Your task to perform on an android device: set default search engine in the chrome app Image 0: 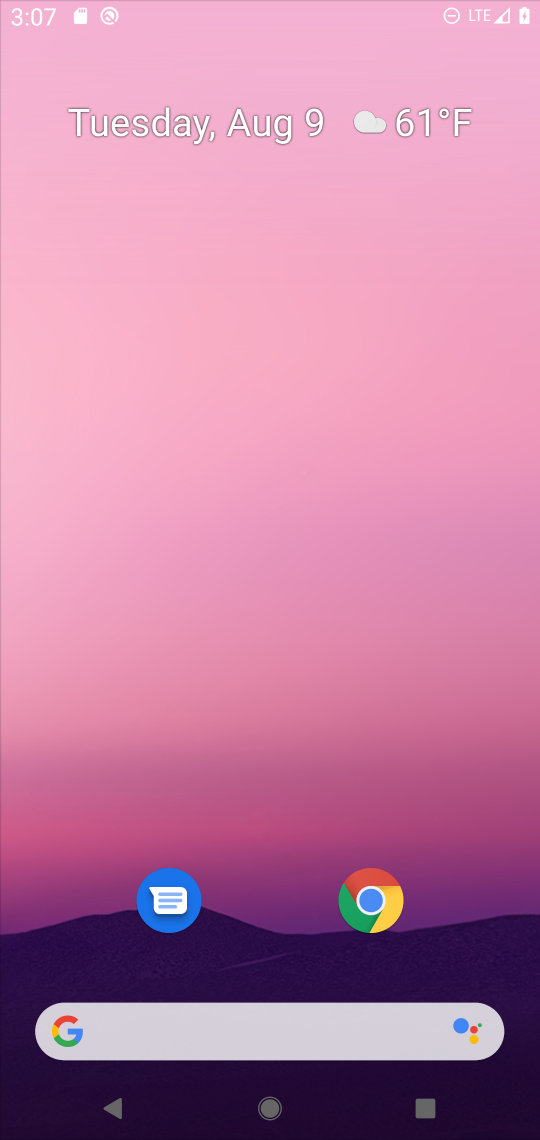
Step 0: press home button
Your task to perform on an android device: set default search engine in the chrome app Image 1: 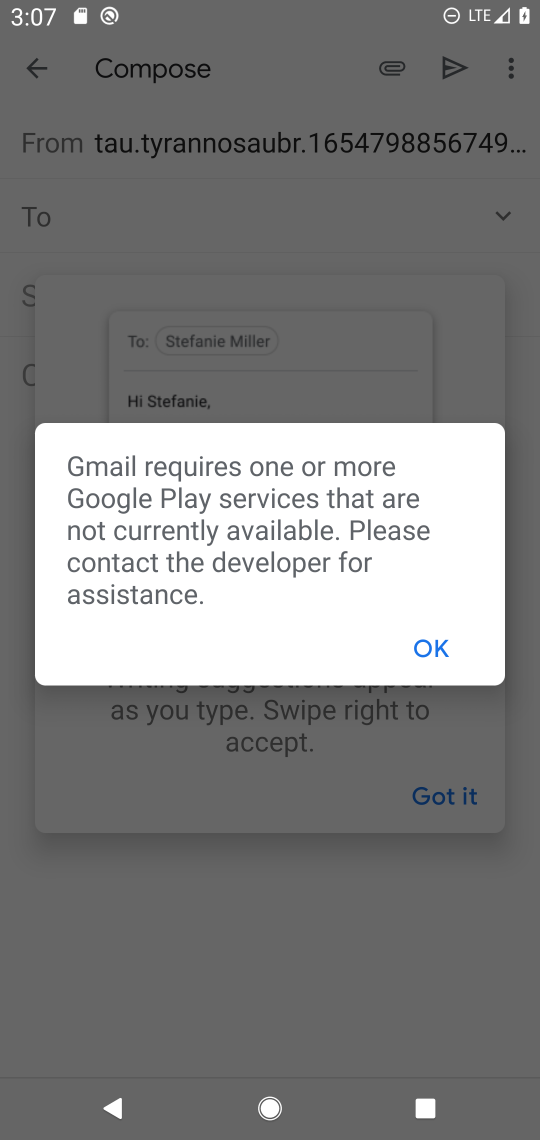
Step 1: click (314, 152)
Your task to perform on an android device: set default search engine in the chrome app Image 2: 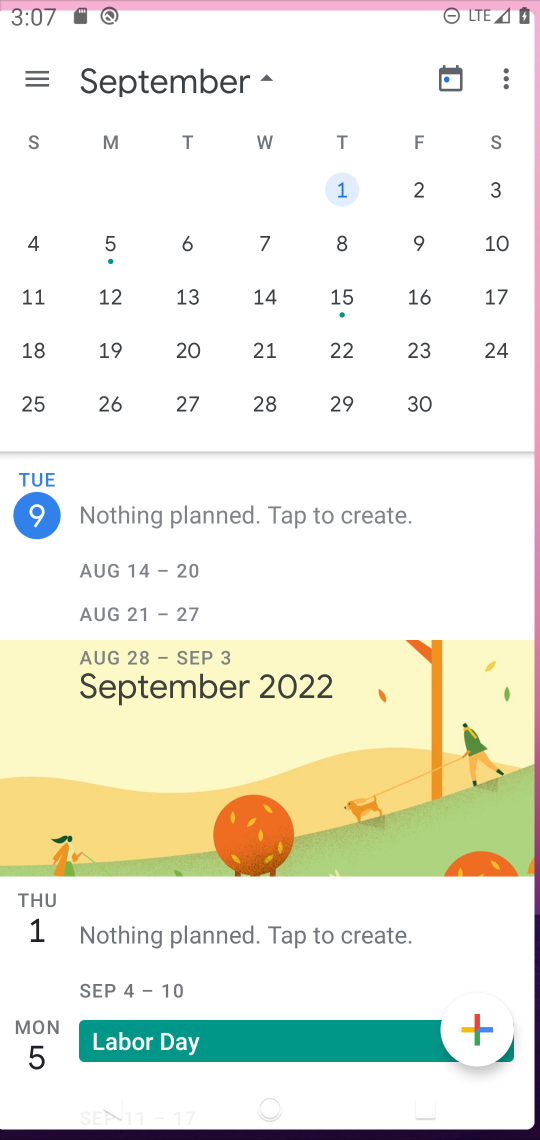
Step 2: drag from (445, 899) to (430, 191)
Your task to perform on an android device: set default search engine in the chrome app Image 3: 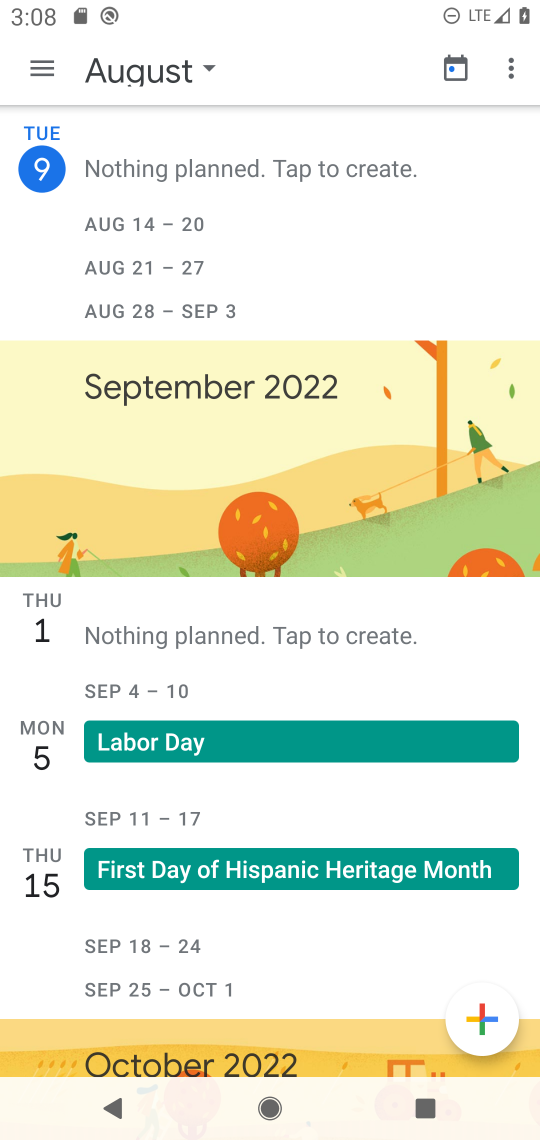
Step 3: press home button
Your task to perform on an android device: set default search engine in the chrome app Image 4: 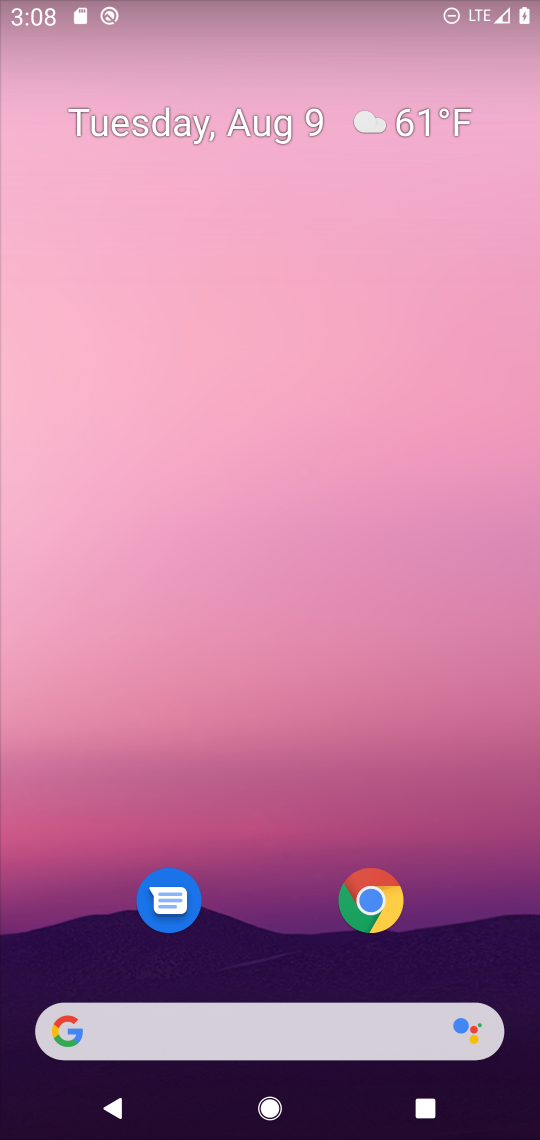
Step 4: drag from (260, 885) to (297, 52)
Your task to perform on an android device: set default search engine in the chrome app Image 5: 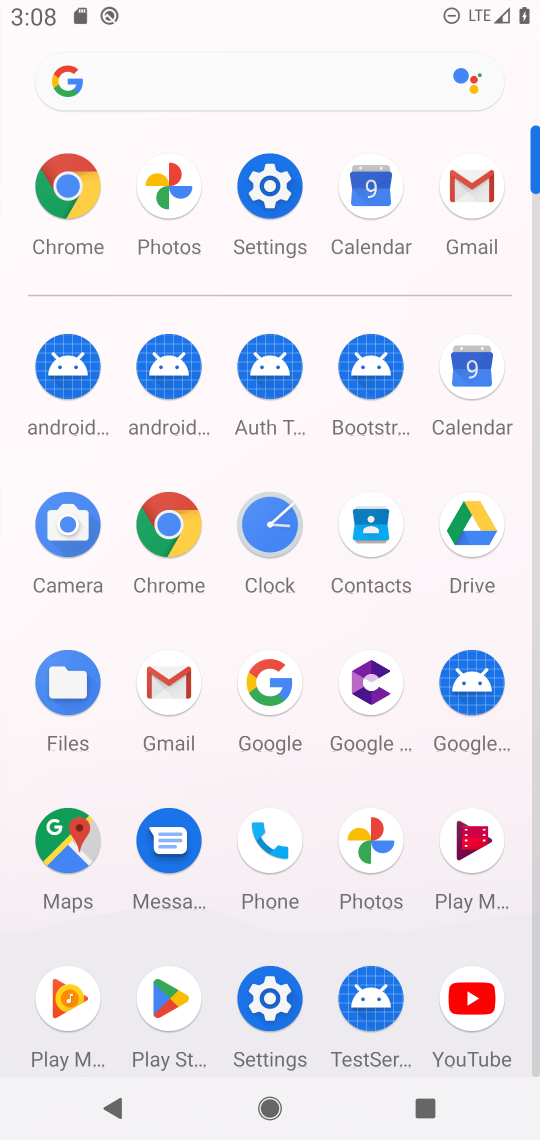
Step 5: click (173, 519)
Your task to perform on an android device: set default search engine in the chrome app Image 6: 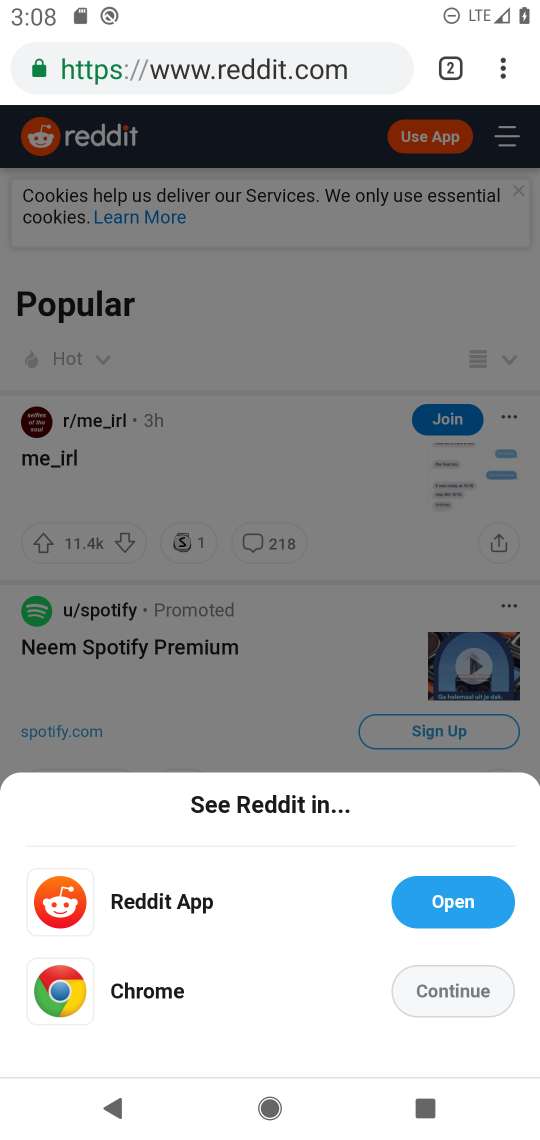
Step 6: click (502, 72)
Your task to perform on an android device: set default search engine in the chrome app Image 7: 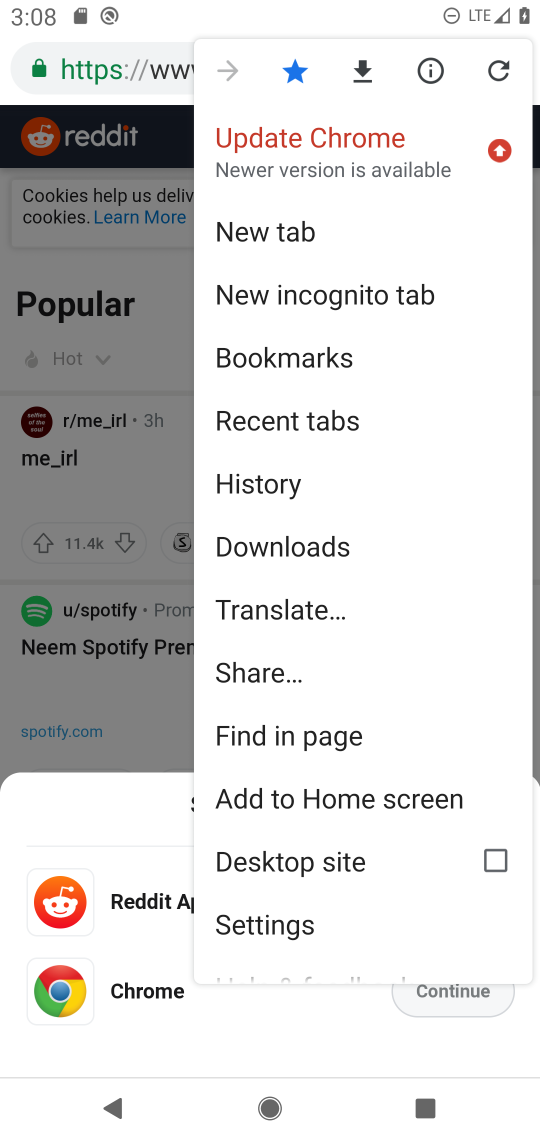
Step 7: click (285, 920)
Your task to perform on an android device: set default search engine in the chrome app Image 8: 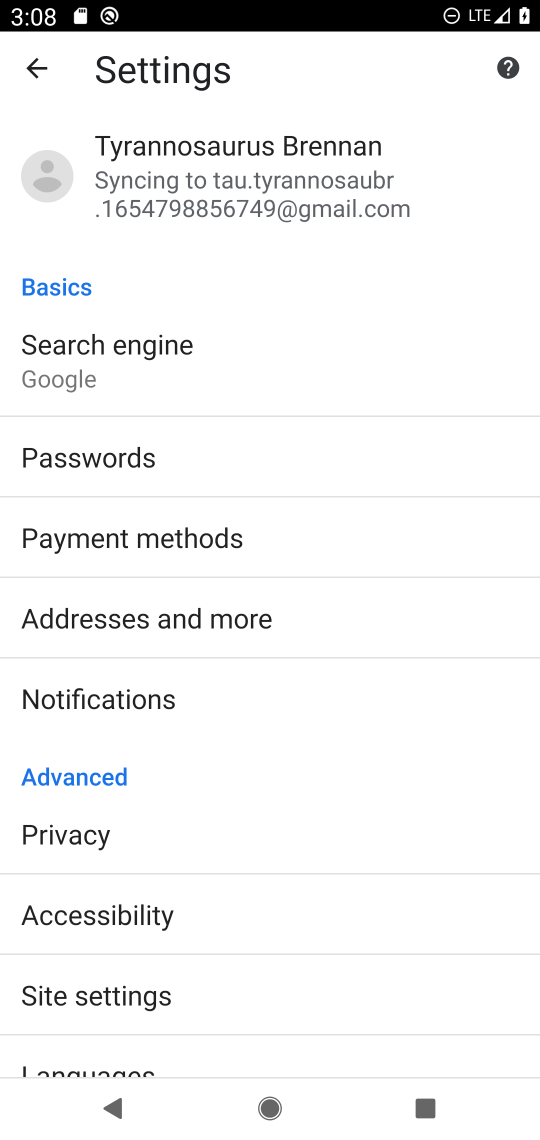
Step 8: click (144, 373)
Your task to perform on an android device: set default search engine in the chrome app Image 9: 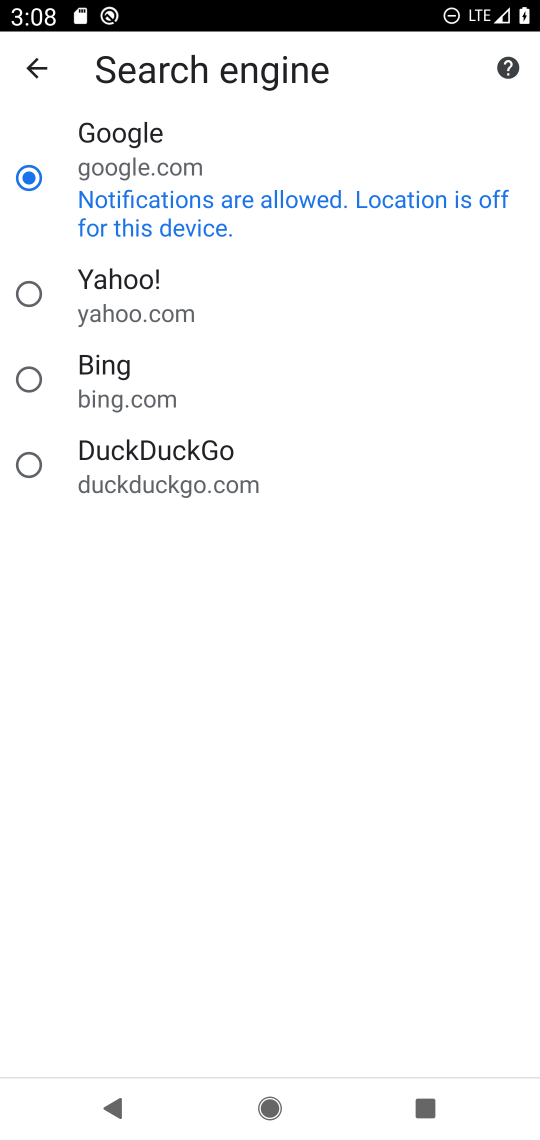
Step 9: click (28, 302)
Your task to perform on an android device: set default search engine in the chrome app Image 10: 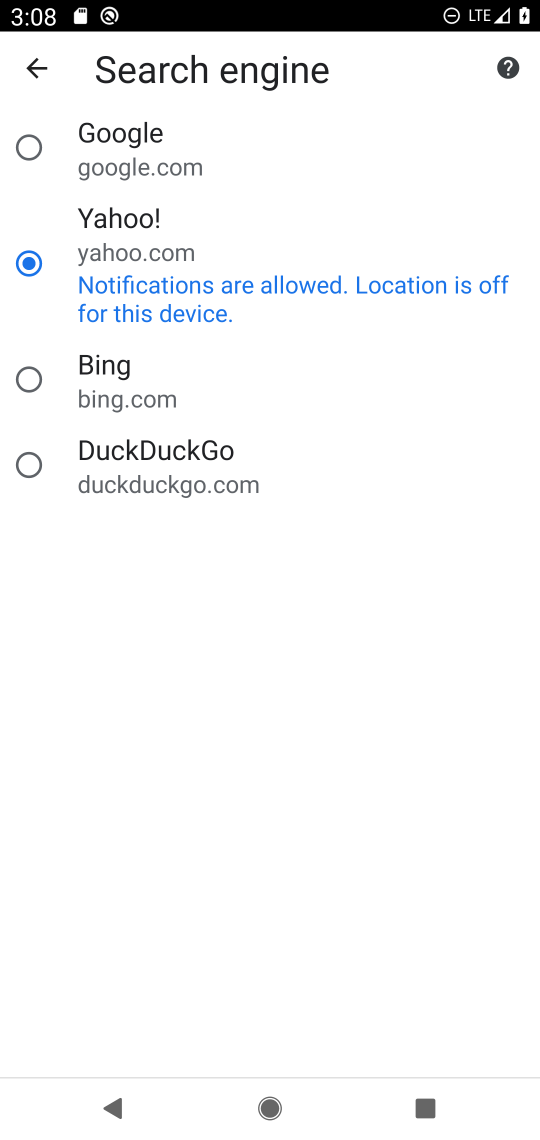
Step 10: task complete